Your task to perform on an android device: Open network settings Image 0: 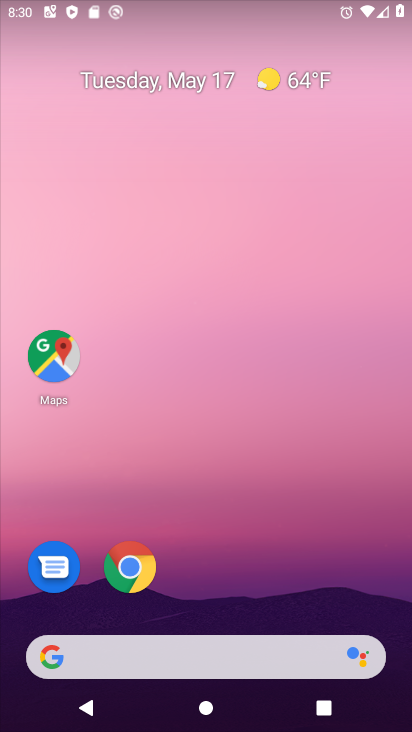
Step 0: drag from (340, 619) to (241, 159)
Your task to perform on an android device: Open network settings Image 1: 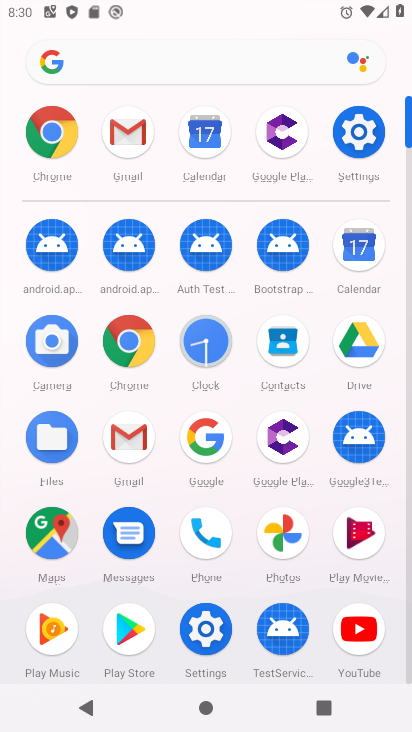
Step 1: click (341, 140)
Your task to perform on an android device: Open network settings Image 2: 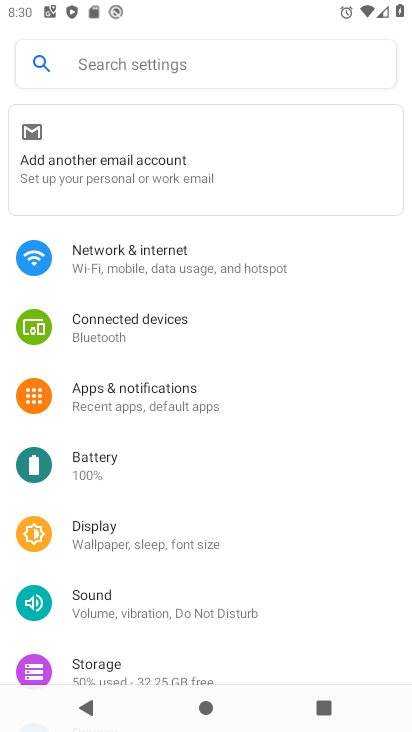
Step 2: click (203, 274)
Your task to perform on an android device: Open network settings Image 3: 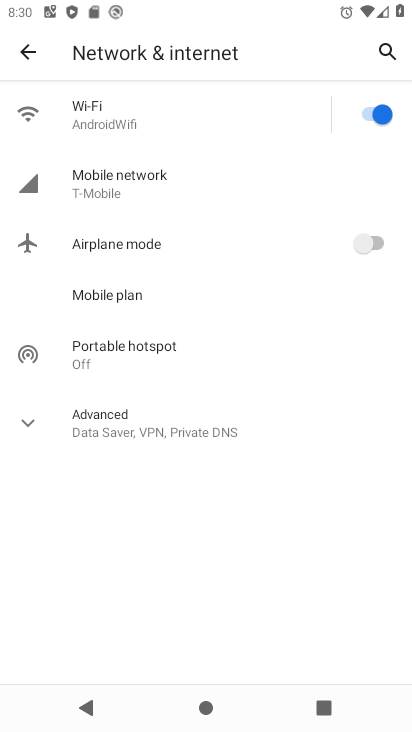
Step 3: task complete